Your task to perform on an android device: see sites visited before in the chrome app Image 0: 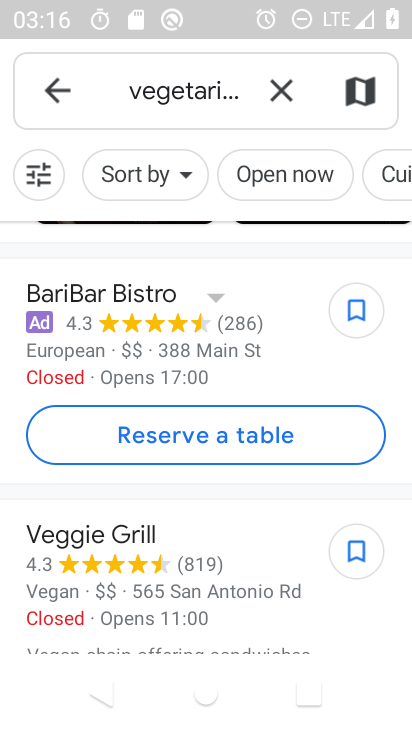
Step 0: press home button
Your task to perform on an android device: see sites visited before in the chrome app Image 1: 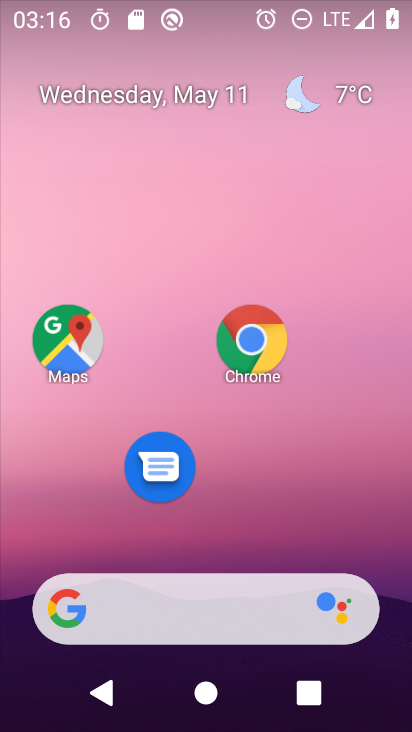
Step 1: drag from (165, 621) to (298, 242)
Your task to perform on an android device: see sites visited before in the chrome app Image 2: 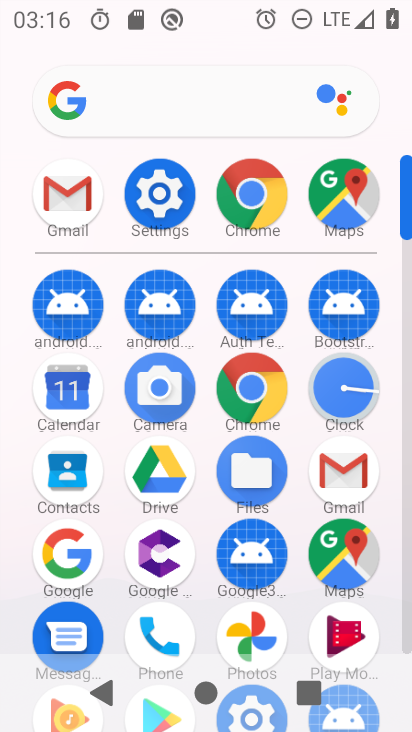
Step 2: click (252, 208)
Your task to perform on an android device: see sites visited before in the chrome app Image 3: 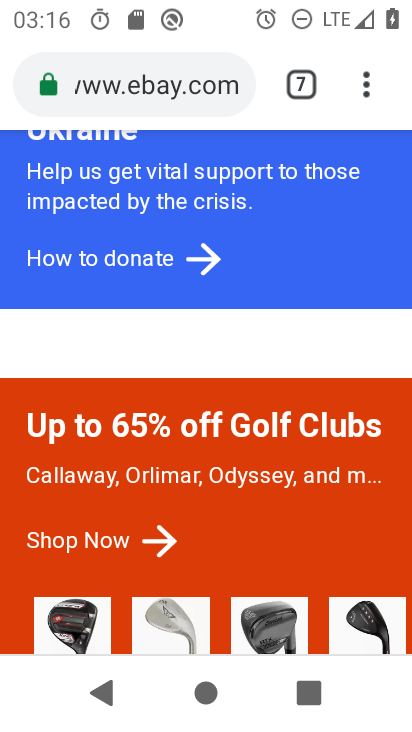
Step 3: task complete